Your task to perform on an android device: snooze an email in the gmail app Image 0: 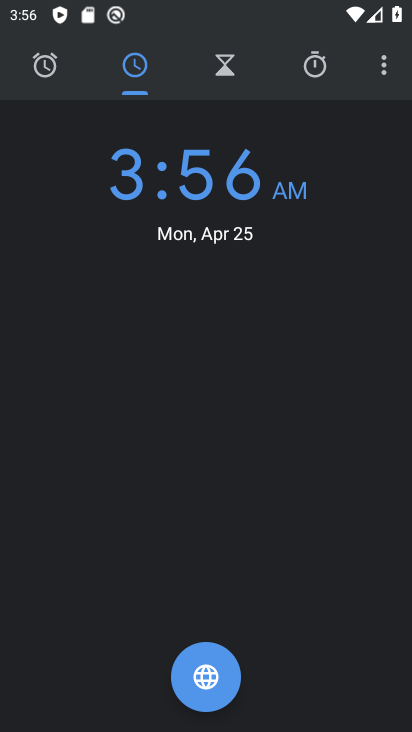
Step 0: press home button
Your task to perform on an android device: snooze an email in the gmail app Image 1: 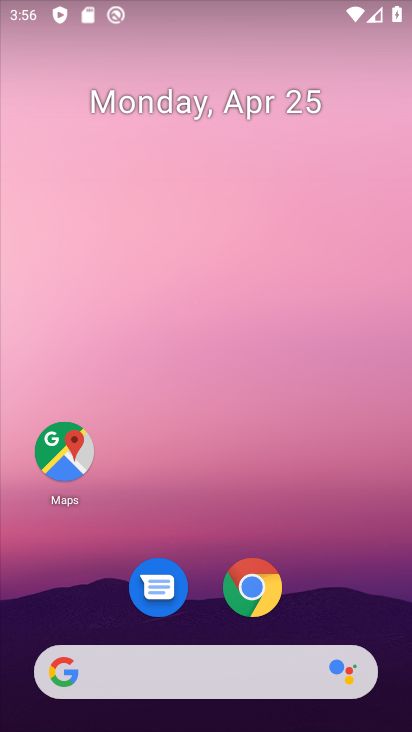
Step 1: drag from (385, 622) to (393, 11)
Your task to perform on an android device: snooze an email in the gmail app Image 2: 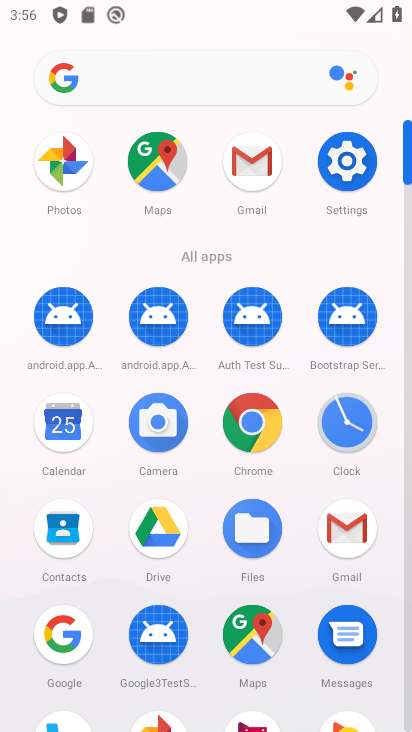
Step 2: click (249, 170)
Your task to perform on an android device: snooze an email in the gmail app Image 3: 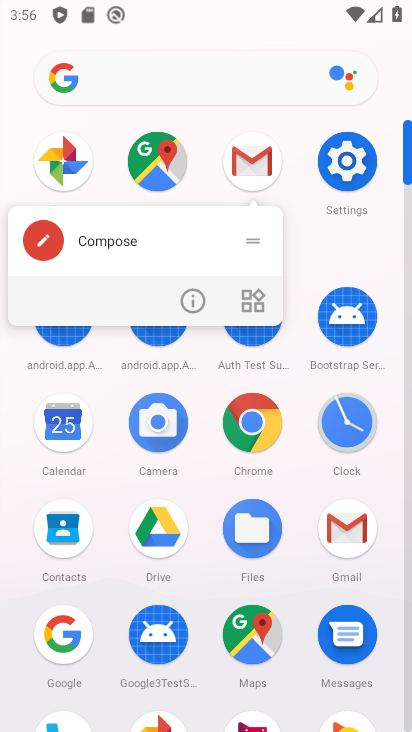
Step 3: click (249, 170)
Your task to perform on an android device: snooze an email in the gmail app Image 4: 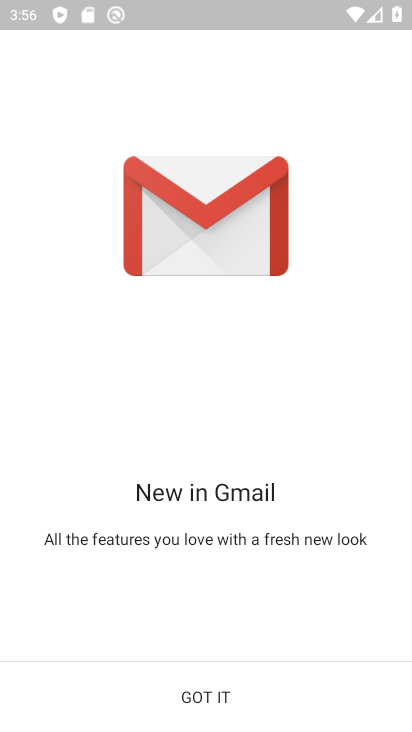
Step 4: click (196, 695)
Your task to perform on an android device: snooze an email in the gmail app Image 5: 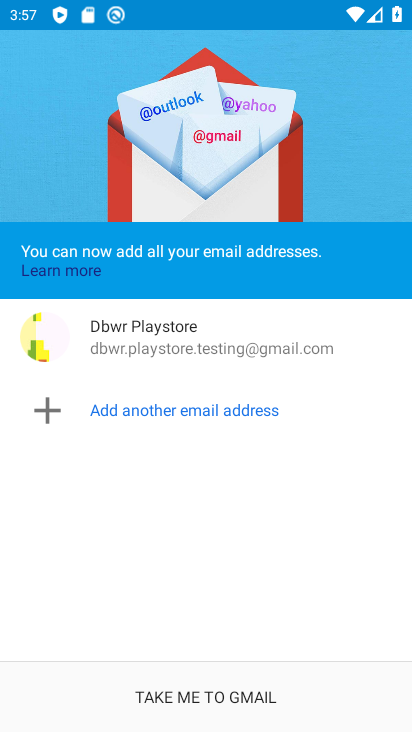
Step 5: click (198, 697)
Your task to perform on an android device: snooze an email in the gmail app Image 6: 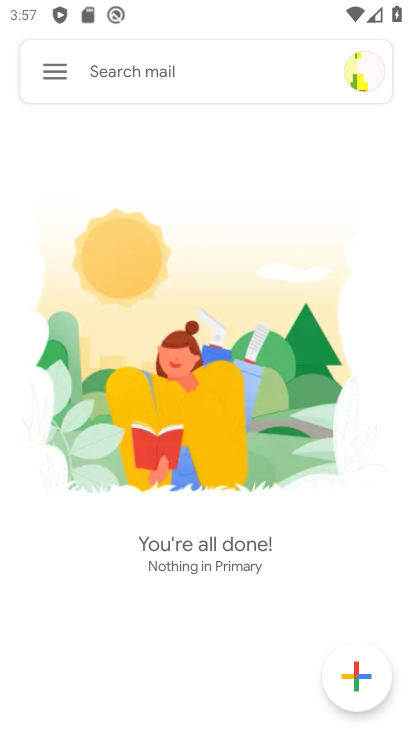
Step 6: click (46, 74)
Your task to perform on an android device: snooze an email in the gmail app Image 7: 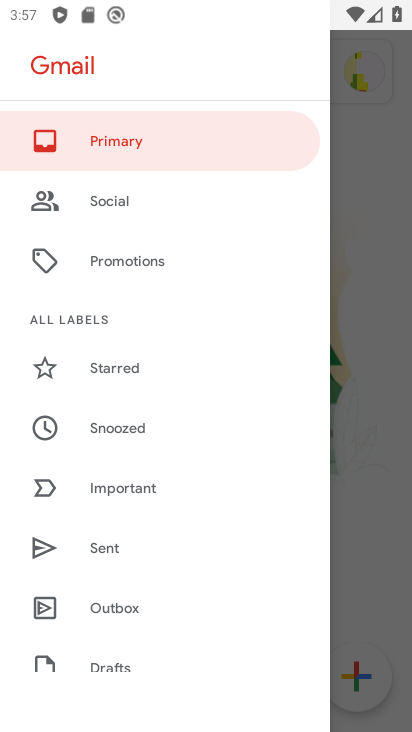
Step 7: drag from (155, 561) to (139, 352)
Your task to perform on an android device: snooze an email in the gmail app Image 8: 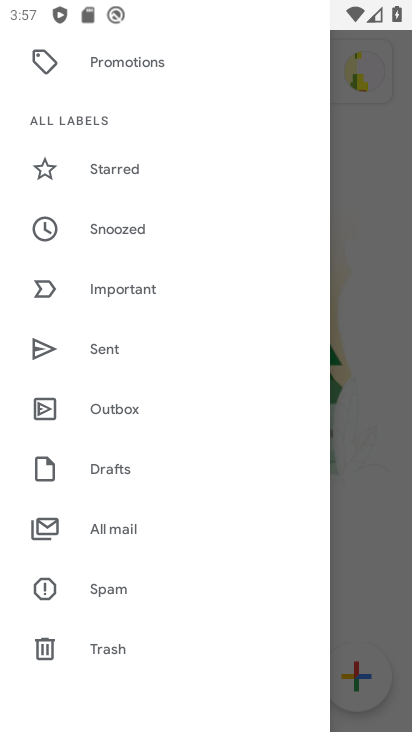
Step 8: click (103, 529)
Your task to perform on an android device: snooze an email in the gmail app Image 9: 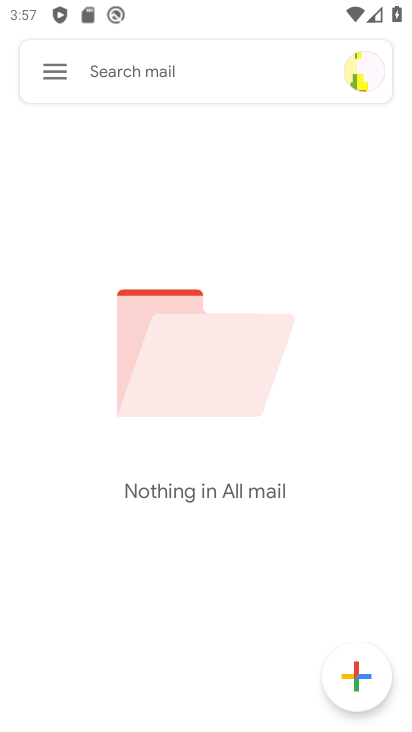
Step 9: task complete